Your task to perform on an android device: Show me the alarms in the clock app Image 0: 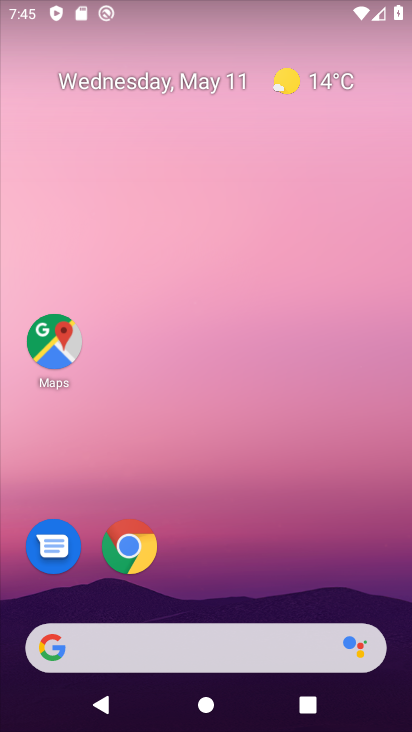
Step 0: drag from (299, 479) to (363, 87)
Your task to perform on an android device: Show me the alarms in the clock app Image 1: 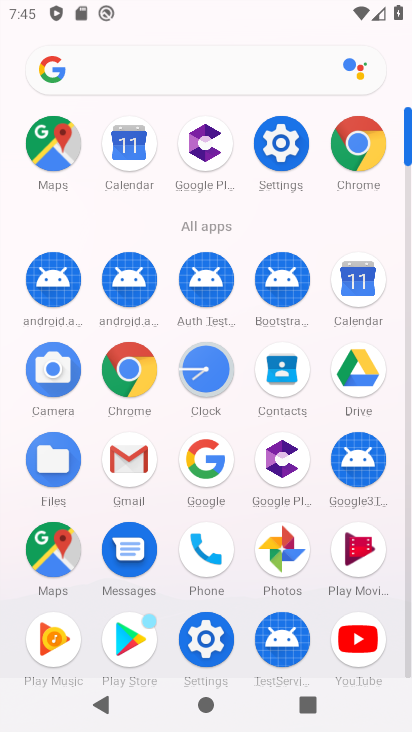
Step 1: click (217, 366)
Your task to perform on an android device: Show me the alarms in the clock app Image 2: 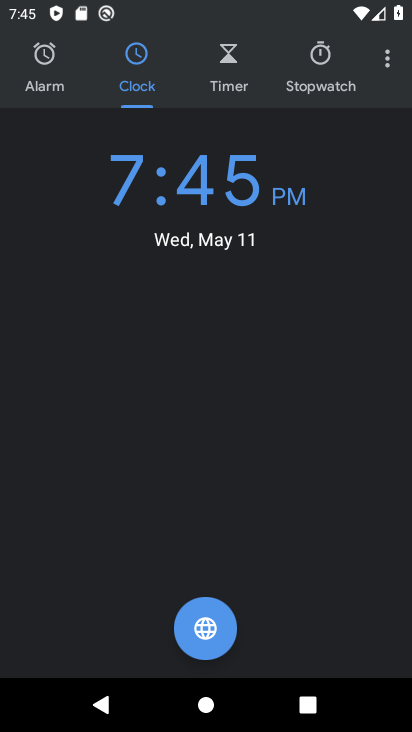
Step 2: click (63, 67)
Your task to perform on an android device: Show me the alarms in the clock app Image 3: 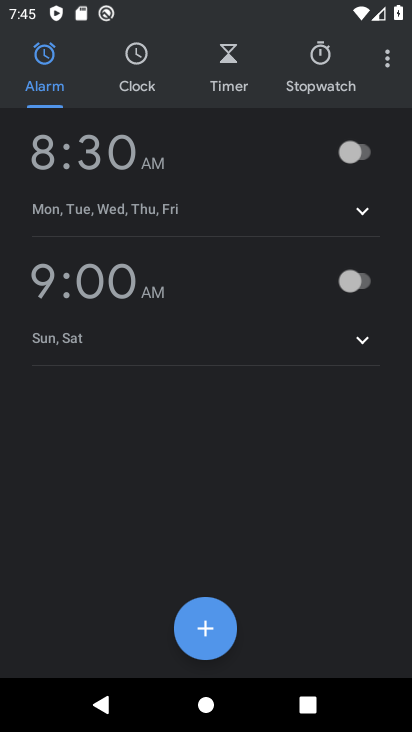
Step 3: task complete